Your task to perform on an android device: clear history in the chrome app Image 0: 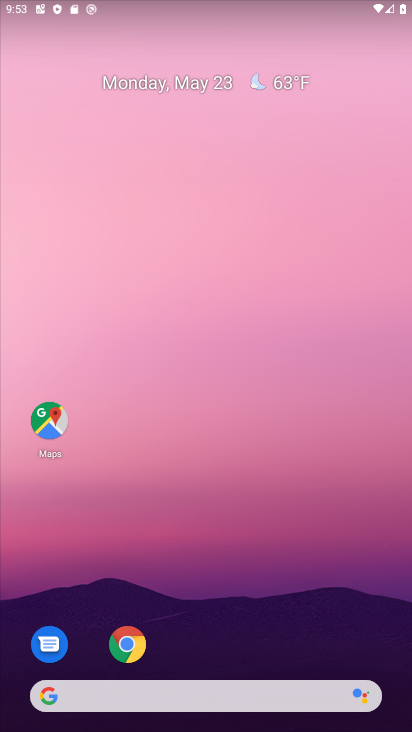
Step 0: click (128, 641)
Your task to perform on an android device: clear history in the chrome app Image 1: 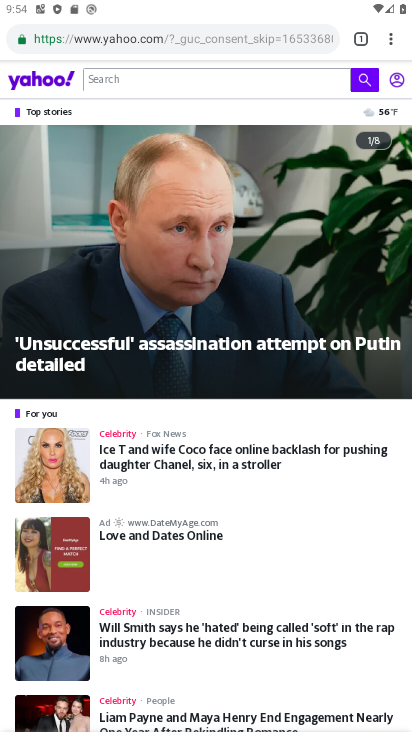
Step 1: click (388, 39)
Your task to perform on an android device: clear history in the chrome app Image 2: 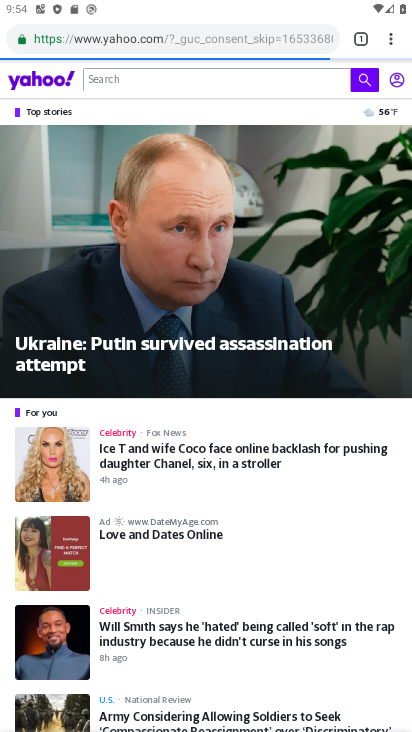
Step 2: click (389, 42)
Your task to perform on an android device: clear history in the chrome app Image 3: 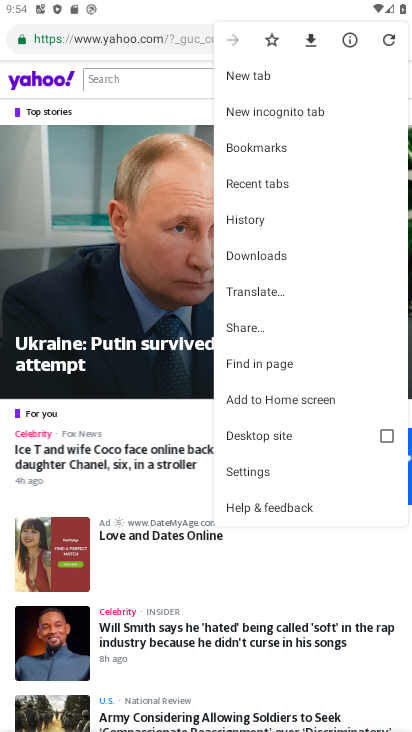
Step 3: click (265, 219)
Your task to perform on an android device: clear history in the chrome app Image 4: 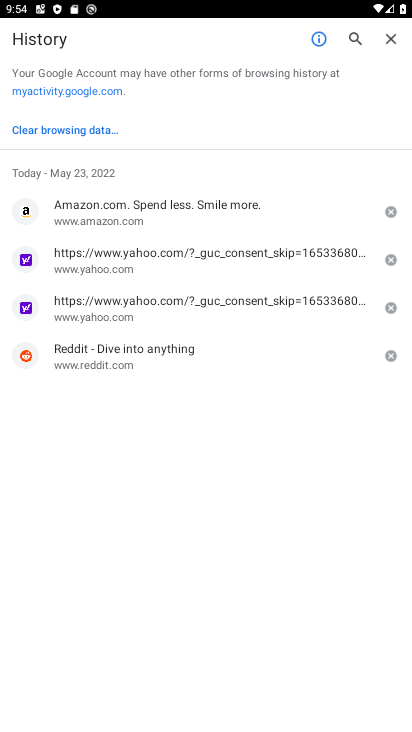
Step 4: click (99, 132)
Your task to perform on an android device: clear history in the chrome app Image 5: 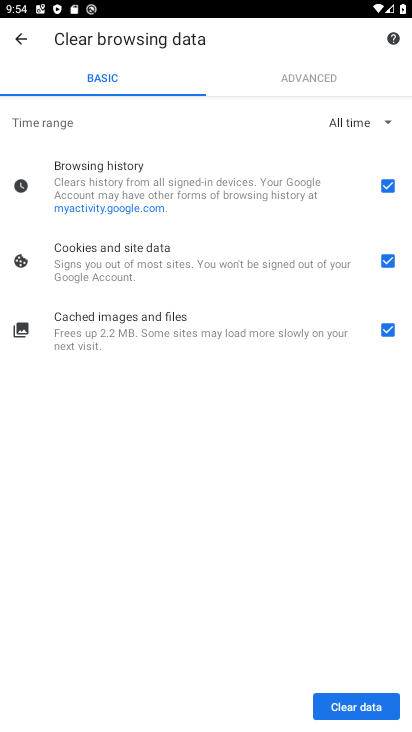
Step 5: click (366, 706)
Your task to perform on an android device: clear history in the chrome app Image 6: 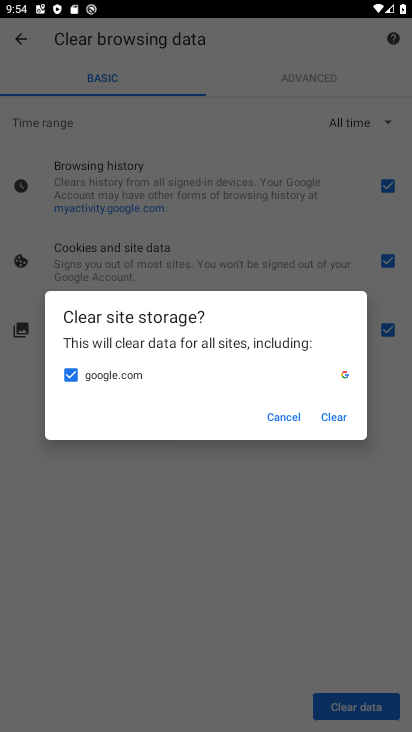
Step 6: click (332, 417)
Your task to perform on an android device: clear history in the chrome app Image 7: 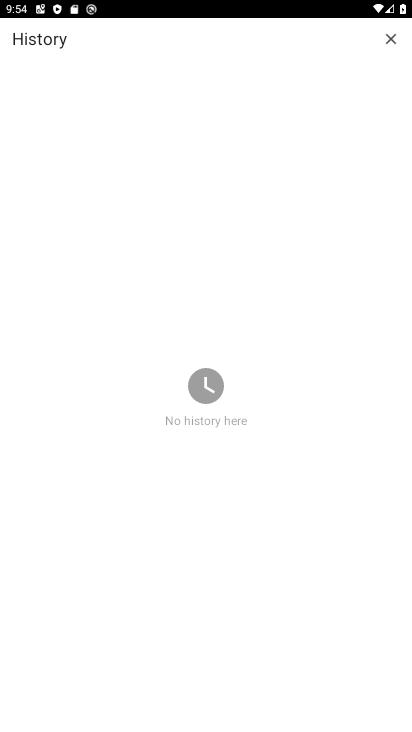
Step 7: task complete